Your task to perform on an android device: Go to wifi settings Image 0: 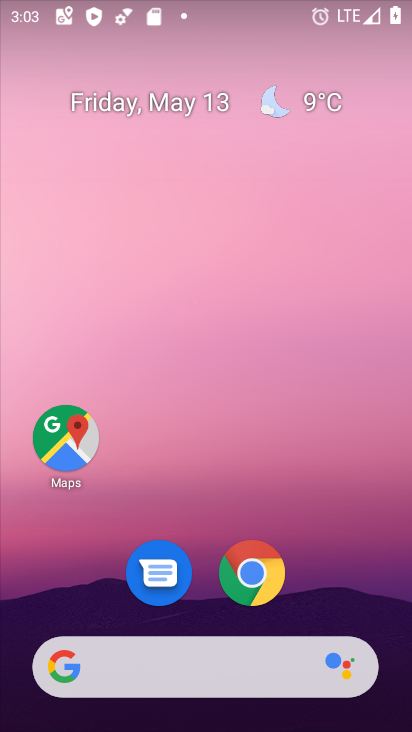
Step 0: drag from (327, 594) to (221, 226)
Your task to perform on an android device: Go to wifi settings Image 1: 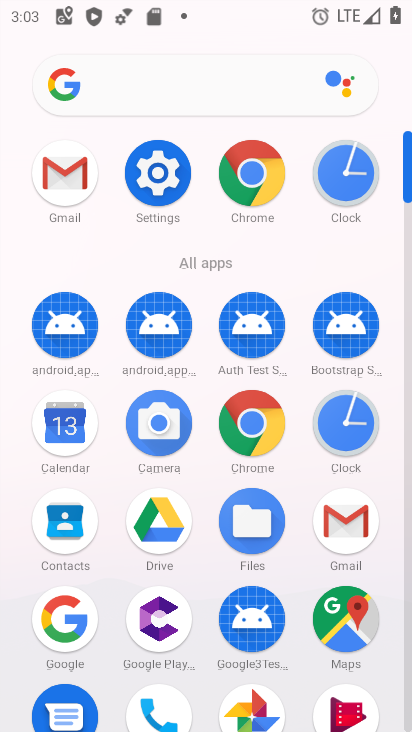
Step 1: click (157, 172)
Your task to perform on an android device: Go to wifi settings Image 2: 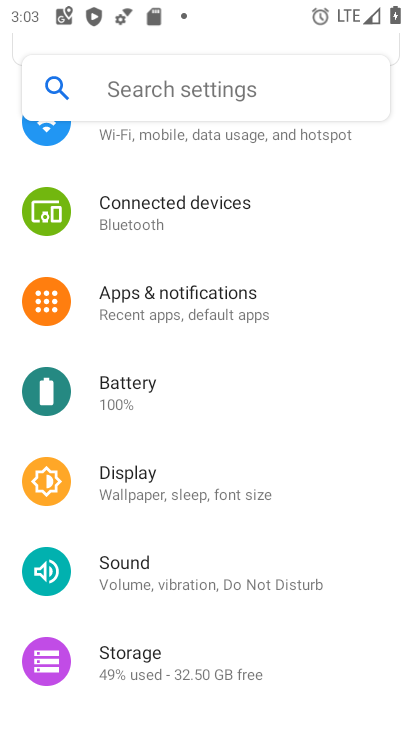
Step 2: drag from (203, 237) to (224, 393)
Your task to perform on an android device: Go to wifi settings Image 3: 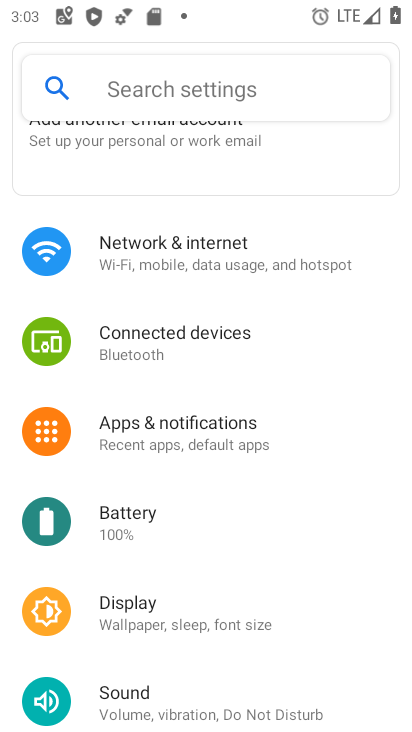
Step 3: drag from (203, 284) to (218, 389)
Your task to perform on an android device: Go to wifi settings Image 4: 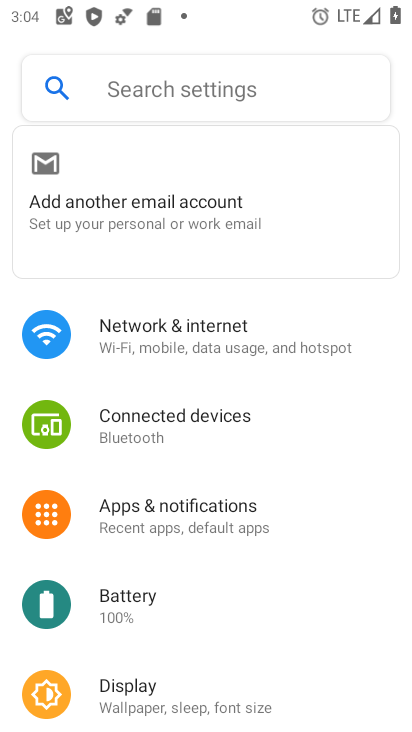
Step 4: click (170, 343)
Your task to perform on an android device: Go to wifi settings Image 5: 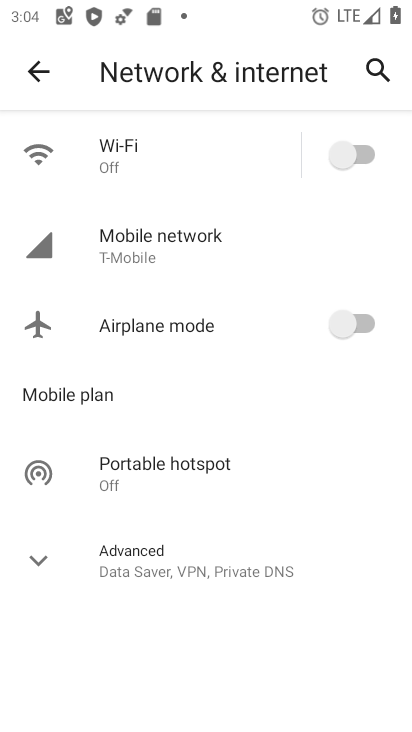
Step 5: click (111, 146)
Your task to perform on an android device: Go to wifi settings Image 6: 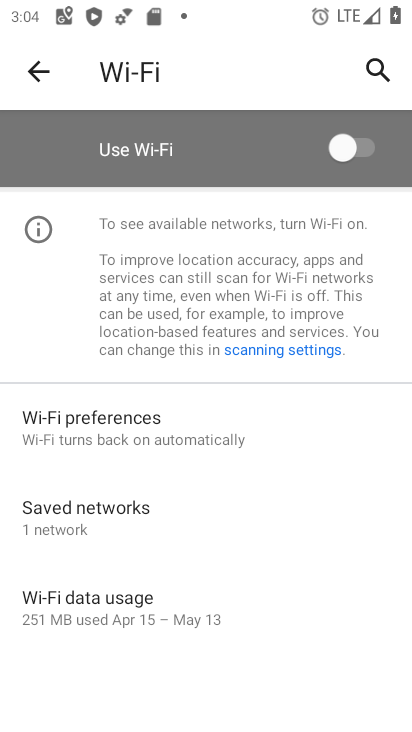
Step 6: task complete